Your task to perform on an android device: Do I have any events today? Image 0: 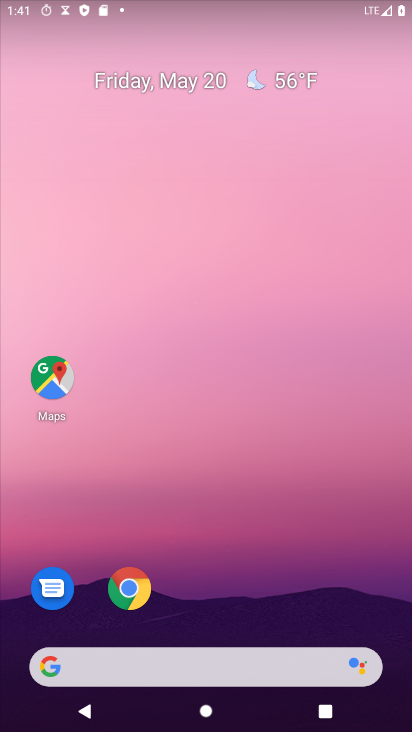
Step 0: press home button
Your task to perform on an android device: Do I have any events today? Image 1: 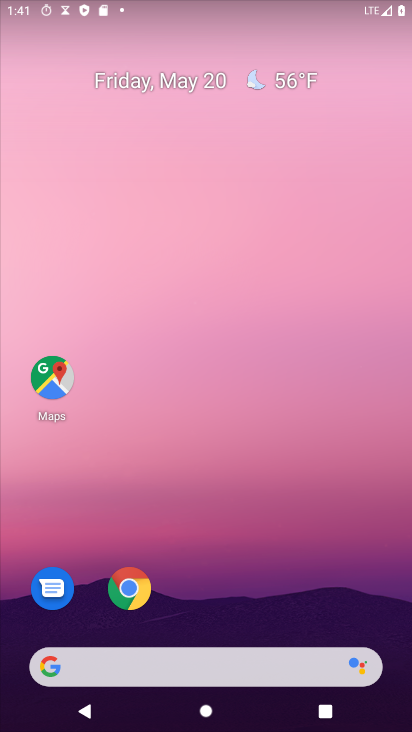
Step 1: drag from (43, 537) to (214, 144)
Your task to perform on an android device: Do I have any events today? Image 2: 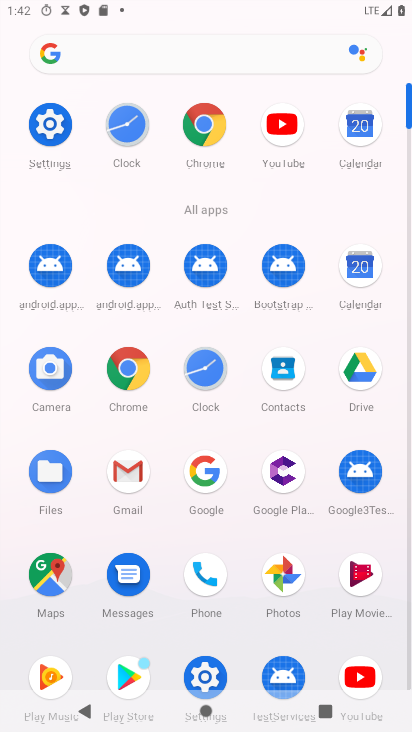
Step 2: click (362, 267)
Your task to perform on an android device: Do I have any events today? Image 3: 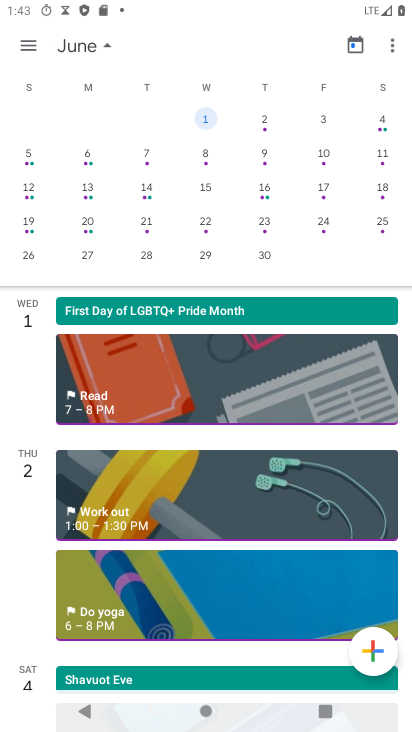
Step 3: drag from (27, 195) to (404, 290)
Your task to perform on an android device: Do I have any events today? Image 4: 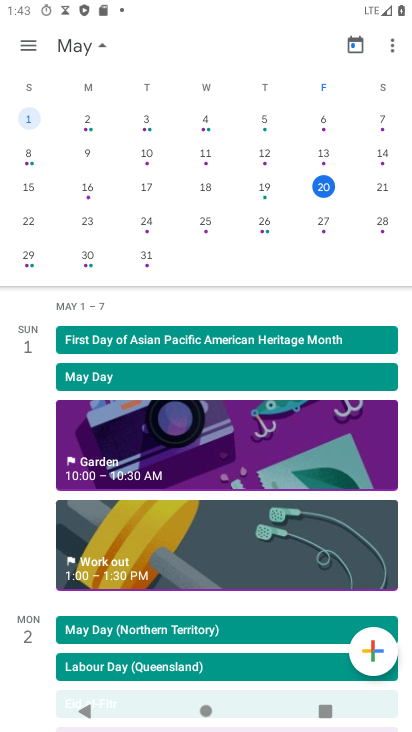
Step 4: click (383, 186)
Your task to perform on an android device: Do I have any events today? Image 5: 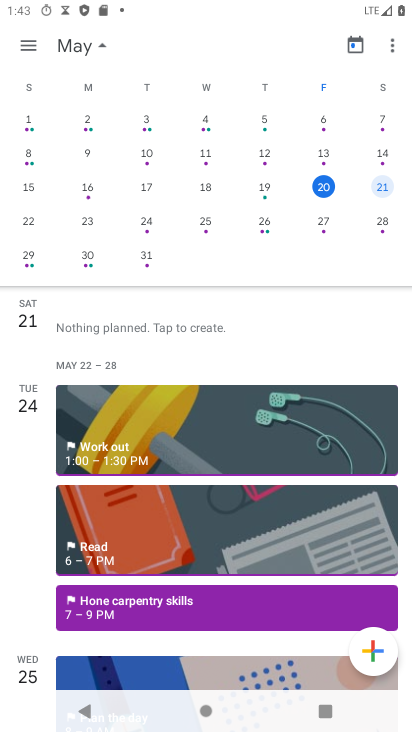
Step 5: task complete